Your task to perform on an android device: Open Chrome and go to settings Image 0: 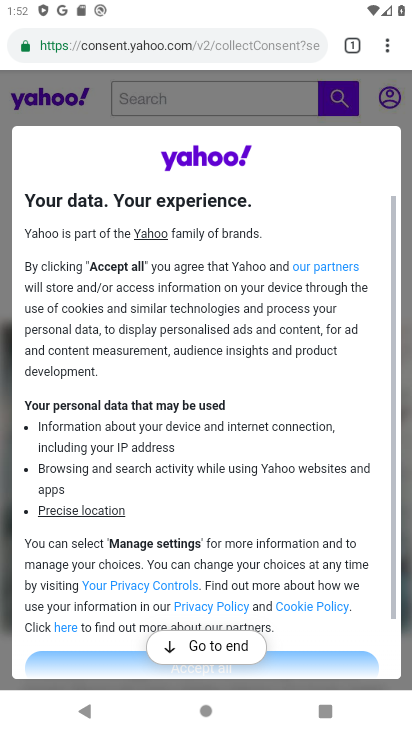
Step 0: press back button
Your task to perform on an android device: Open Chrome and go to settings Image 1: 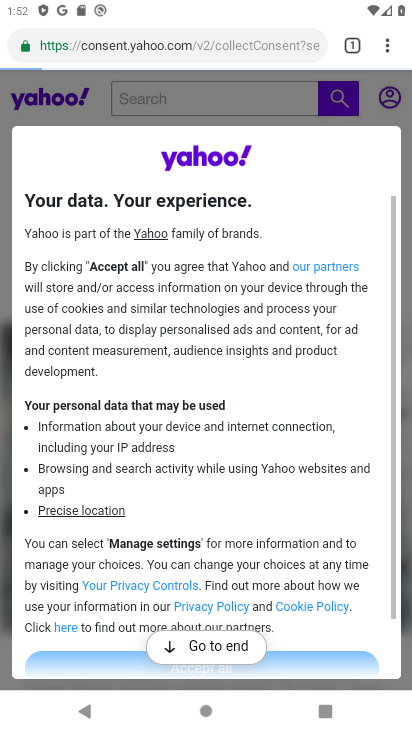
Step 1: press back button
Your task to perform on an android device: Open Chrome and go to settings Image 2: 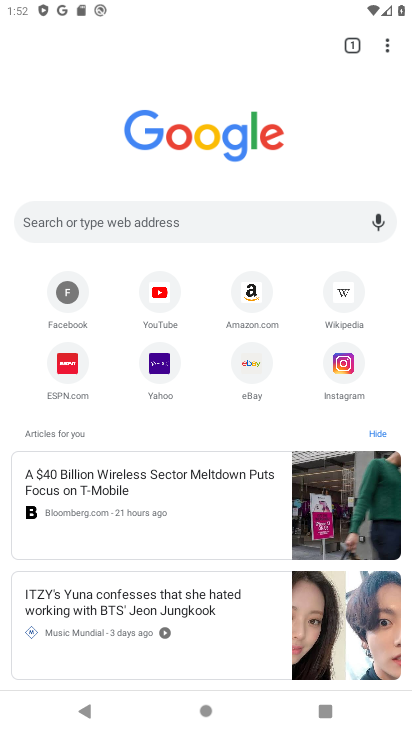
Step 2: click (391, 49)
Your task to perform on an android device: Open Chrome and go to settings Image 3: 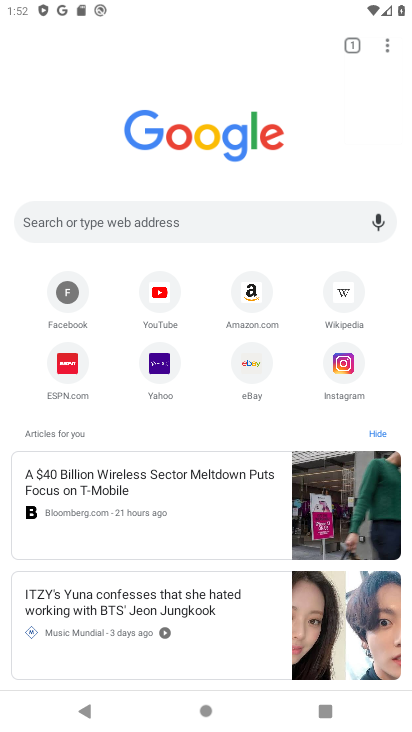
Step 3: drag from (391, 49) to (207, 372)
Your task to perform on an android device: Open Chrome and go to settings Image 4: 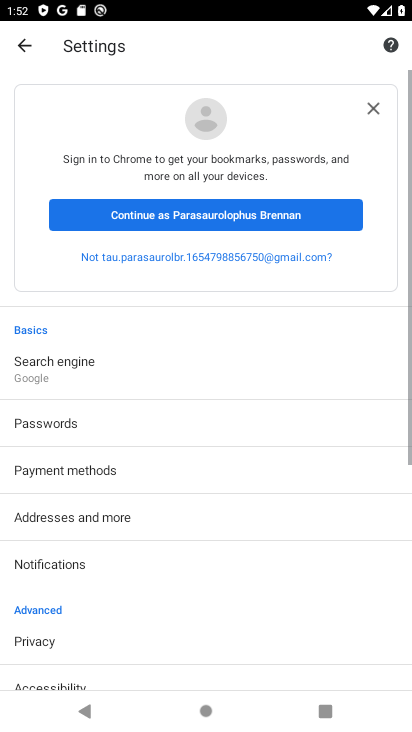
Step 4: drag from (106, 440) to (75, 222)
Your task to perform on an android device: Open Chrome and go to settings Image 5: 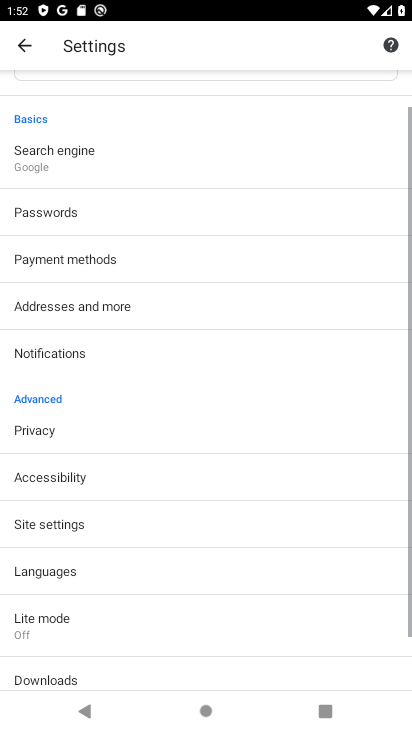
Step 5: drag from (108, 586) to (94, 247)
Your task to perform on an android device: Open Chrome and go to settings Image 6: 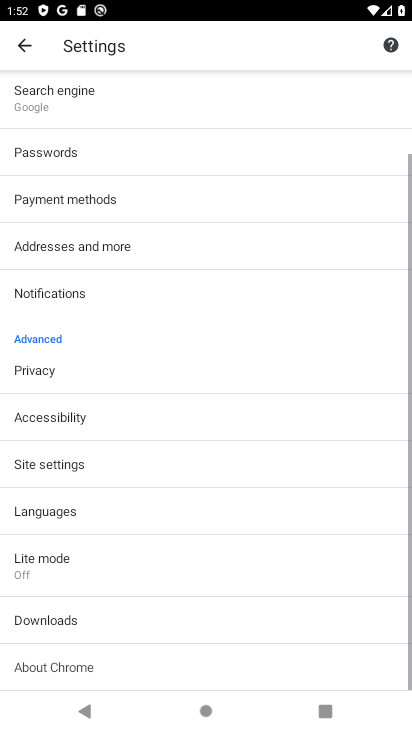
Step 6: drag from (93, 569) to (95, 272)
Your task to perform on an android device: Open Chrome and go to settings Image 7: 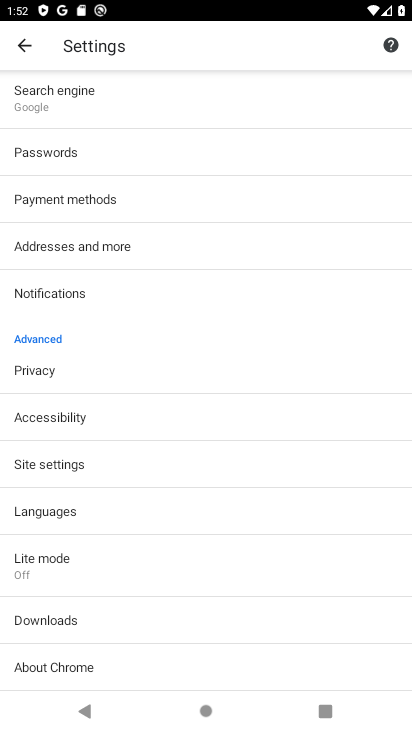
Step 7: click (46, 459)
Your task to perform on an android device: Open Chrome and go to settings Image 8: 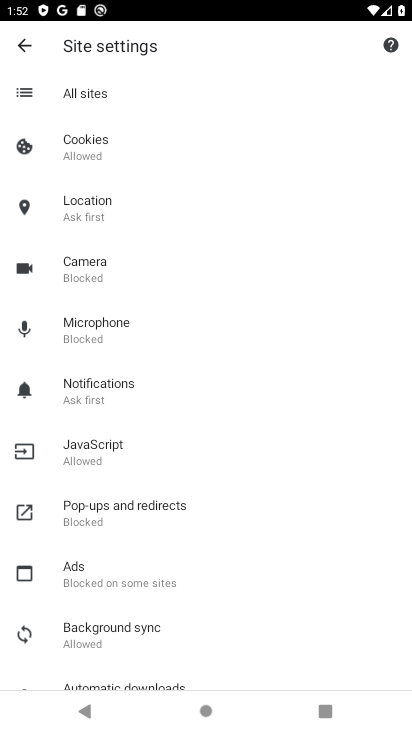
Step 8: task complete